Your task to perform on an android device: Open the phone app and click the voicemail tab. Image 0: 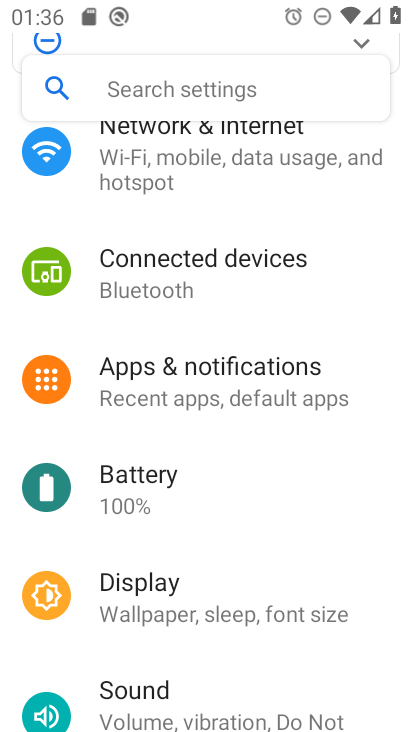
Step 0: drag from (297, 678) to (332, 5)
Your task to perform on an android device: Open the phone app and click the voicemail tab. Image 1: 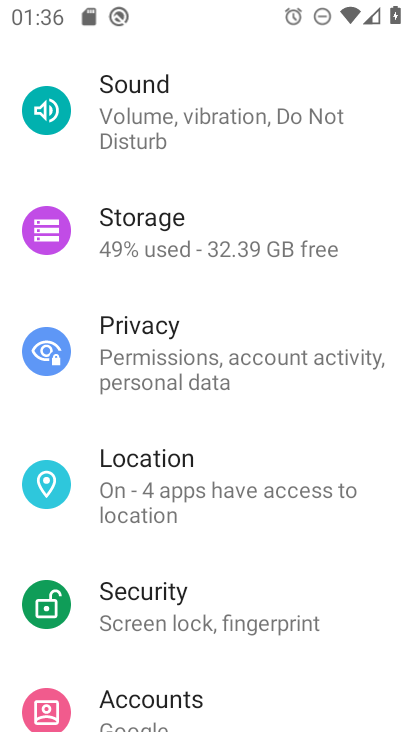
Step 1: press home button
Your task to perform on an android device: Open the phone app and click the voicemail tab. Image 2: 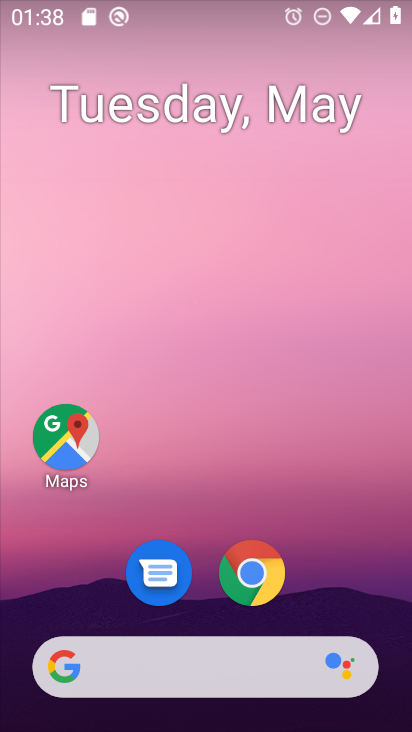
Step 2: drag from (238, 625) to (239, 187)
Your task to perform on an android device: Open the phone app and click the voicemail tab. Image 3: 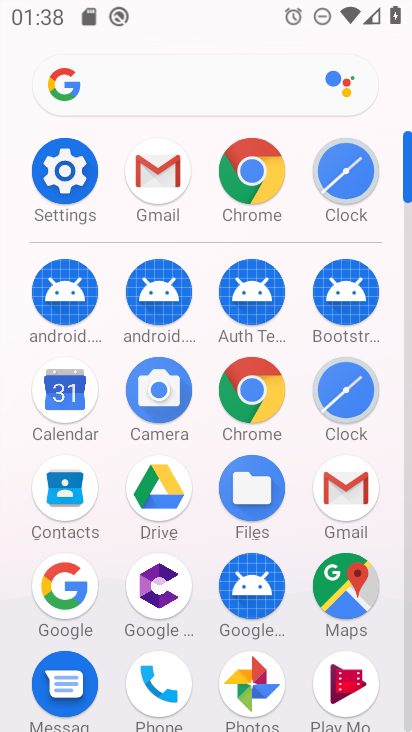
Step 3: click (145, 682)
Your task to perform on an android device: Open the phone app and click the voicemail tab. Image 4: 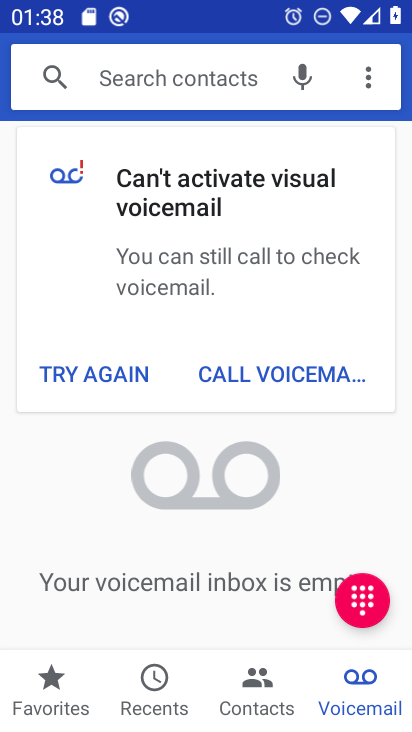
Step 4: click (371, 678)
Your task to perform on an android device: Open the phone app and click the voicemail tab. Image 5: 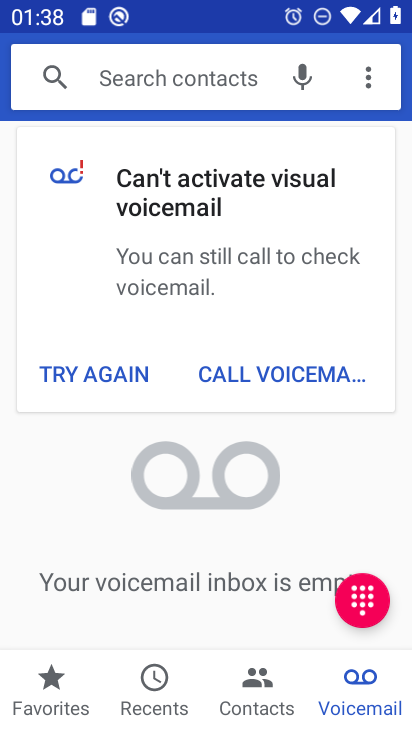
Step 5: task complete